Your task to perform on an android device: Search for pizza restaurants on Maps Image 0: 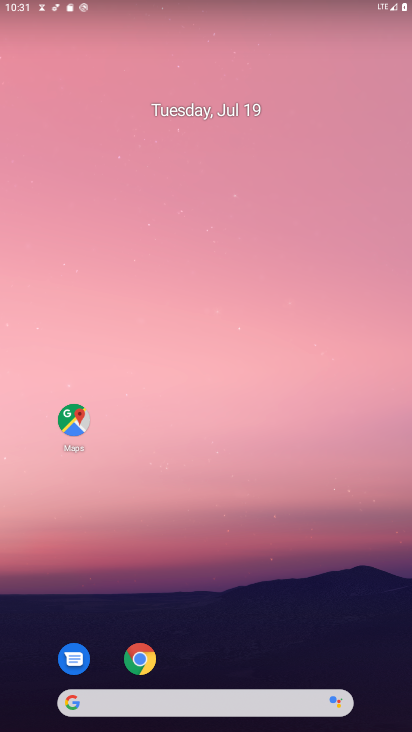
Step 0: drag from (198, 671) to (207, 13)
Your task to perform on an android device: Search for pizza restaurants on Maps Image 1: 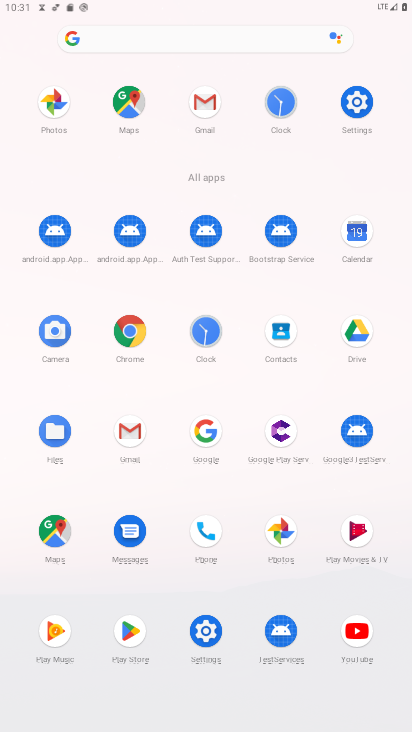
Step 1: click (55, 530)
Your task to perform on an android device: Search for pizza restaurants on Maps Image 2: 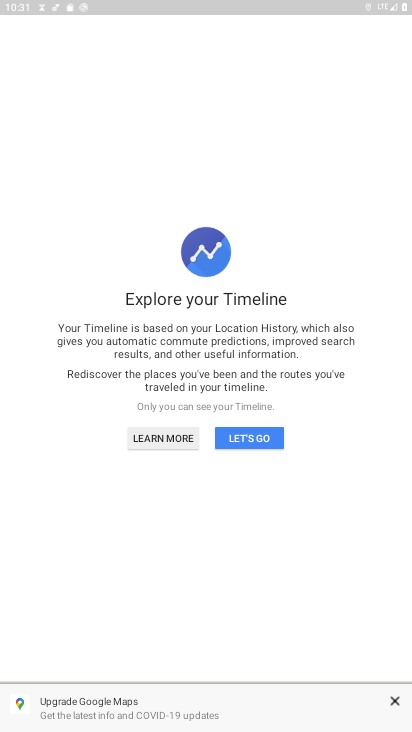
Step 2: press home button
Your task to perform on an android device: Search for pizza restaurants on Maps Image 3: 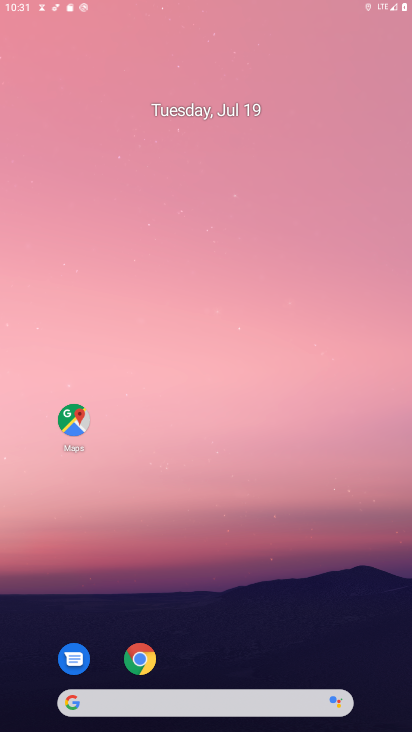
Step 3: drag from (148, 617) to (239, 0)
Your task to perform on an android device: Search for pizza restaurants on Maps Image 4: 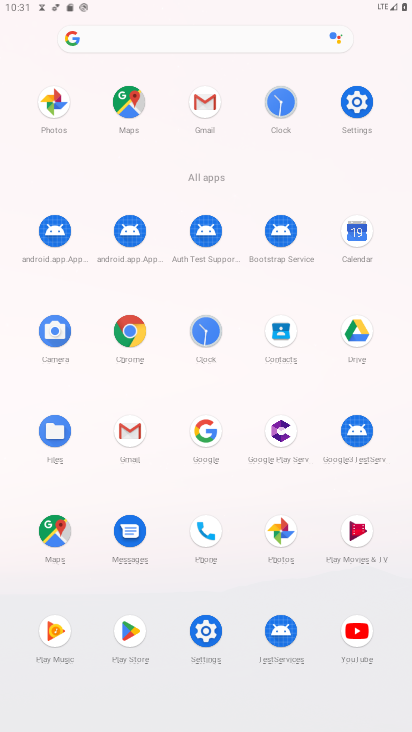
Step 4: click (53, 537)
Your task to perform on an android device: Search for pizza restaurants on Maps Image 5: 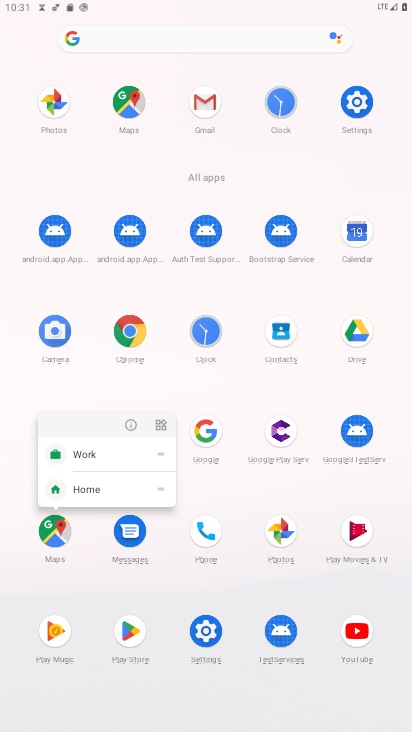
Step 5: click (127, 419)
Your task to perform on an android device: Search for pizza restaurants on Maps Image 6: 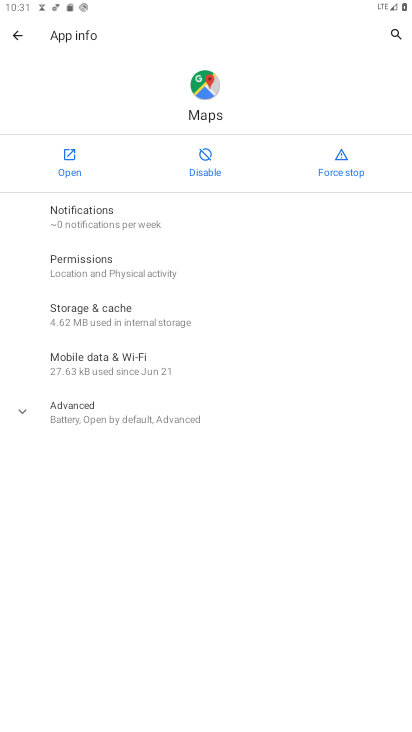
Step 6: click (62, 177)
Your task to perform on an android device: Search for pizza restaurants on Maps Image 7: 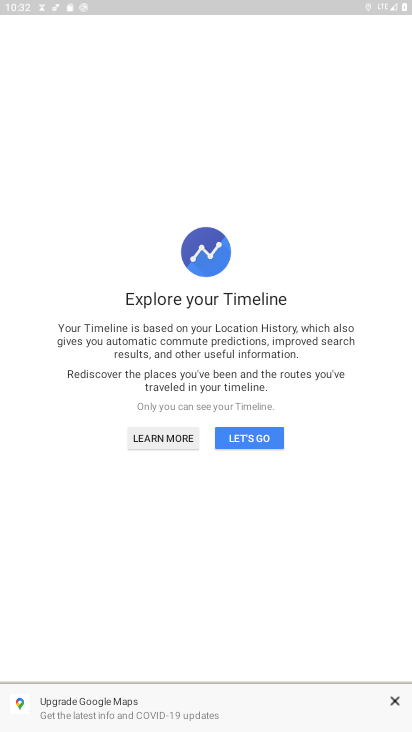
Step 7: drag from (247, 582) to (269, 293)
Your task to perform on an android device: Search for pizza restaurants on Maps Image 8: 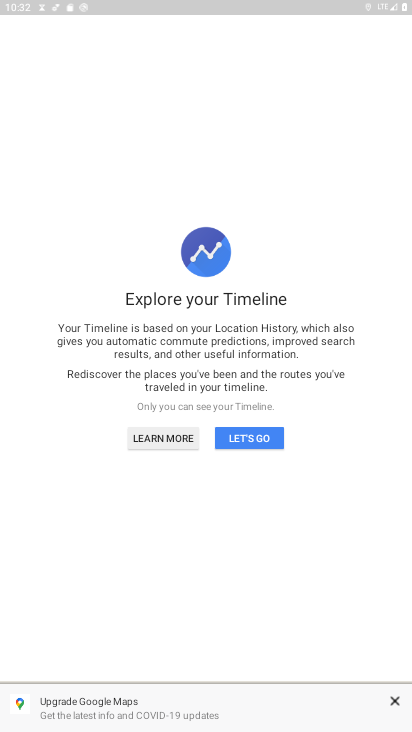
Step 8: click (251, 432)
Your task to perform on an android device: Search for pizza restaurants on Maps Image 9: 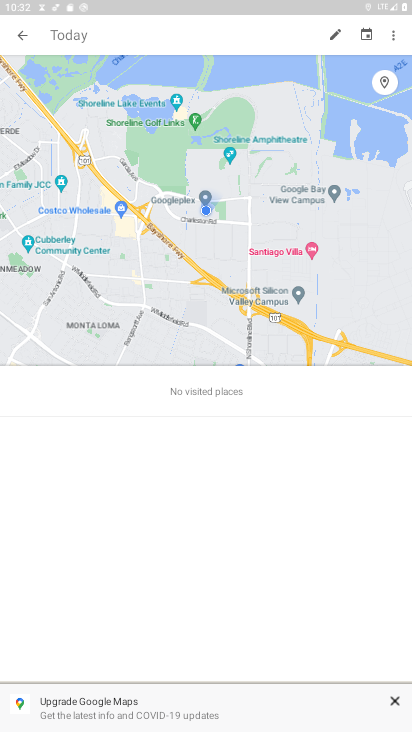
Step 9: click (25, 47)
Your task to perform on an android device: Search for pizza restaurants on Maps Image 10: 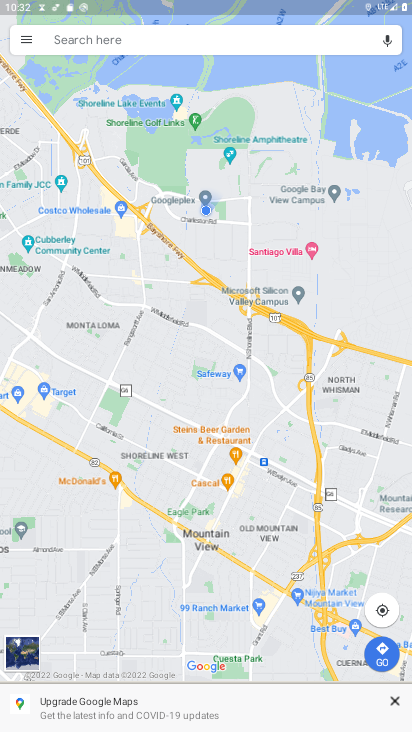
Step 10: click (119, 37)
Your task to perform on an android device: Search for pizza restaurants on Maps Image 11: 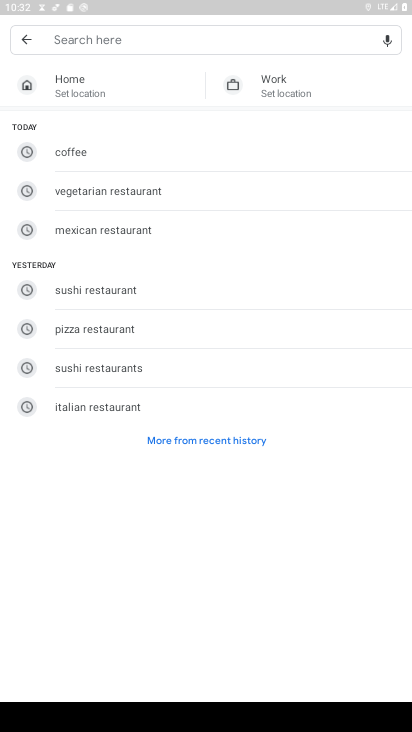
Step 11: click (81, 330)
Your task to perform on an android device: Search for pizza restaurants on Maps Image 12: 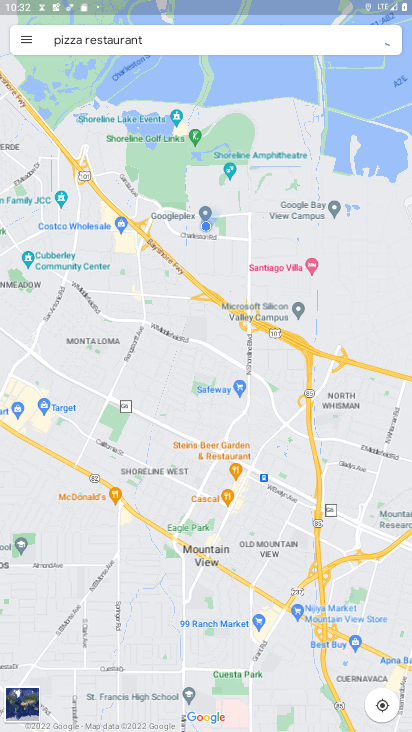
Step 12: task complete